Your task to perform on an android device: Open my contact list Image 0: 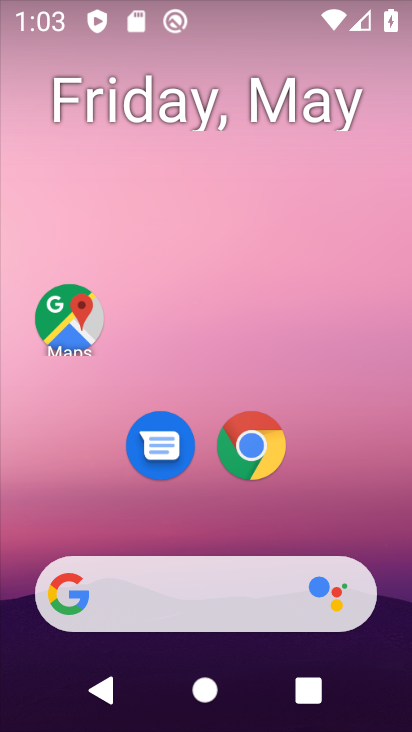
Step 0: drag from (396, 611) to (325, 109)
Your task to perform on an android device: Open my contact list Image 1: 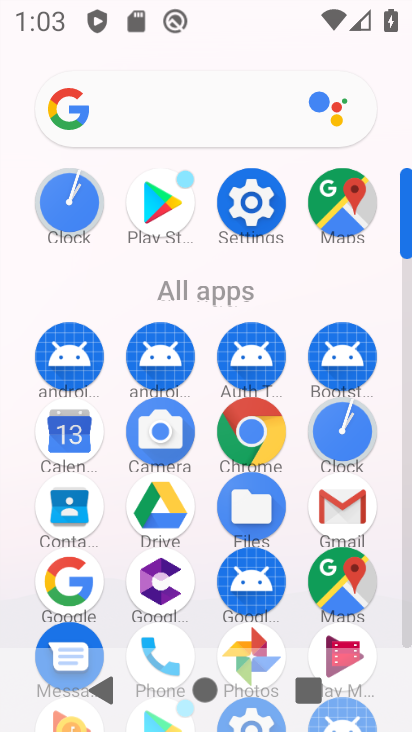
Step 1: click (409, 624)
Your task to perform on an android device: Open my contact list Image 2: 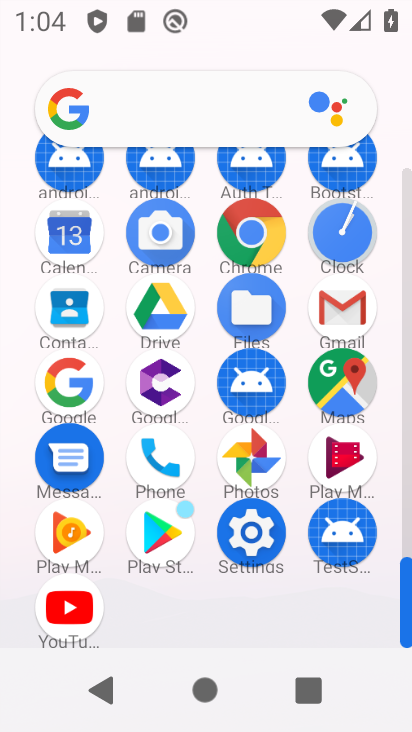
Step 2: click (65, 309)
Your task to perform on an android device: Open my contact list Image 3: 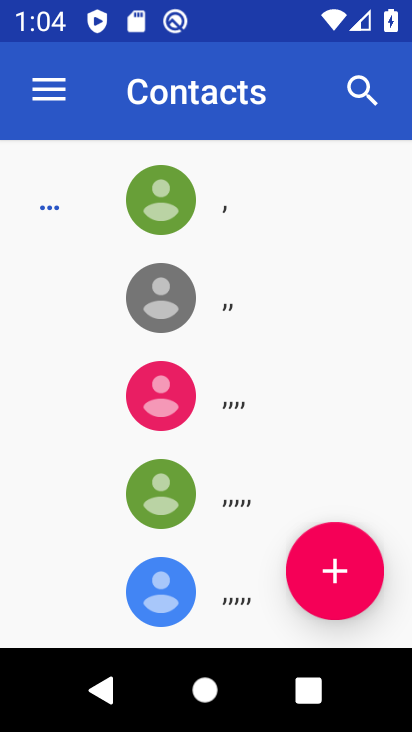
Step 3: task complete